Your task to perform on an android device: Clear the cart on target. Search for "usb-b" on target, select the first entry, and add it to the cart. Image 0: 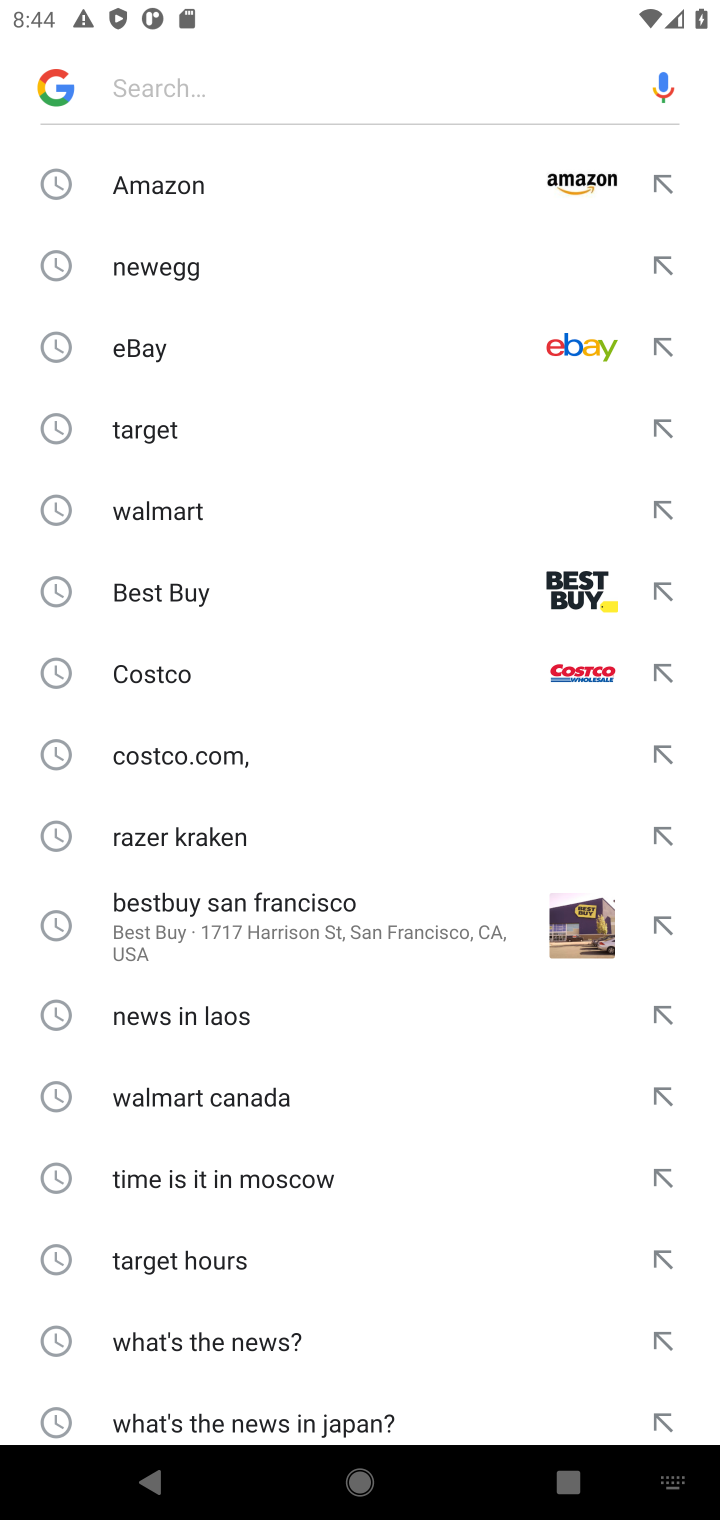
Step 0: press home button
Your task to perform on an android device: Clear the cart on target. Search for "usb-b" on target, select the first entry, and add it to the cart. Image 1: 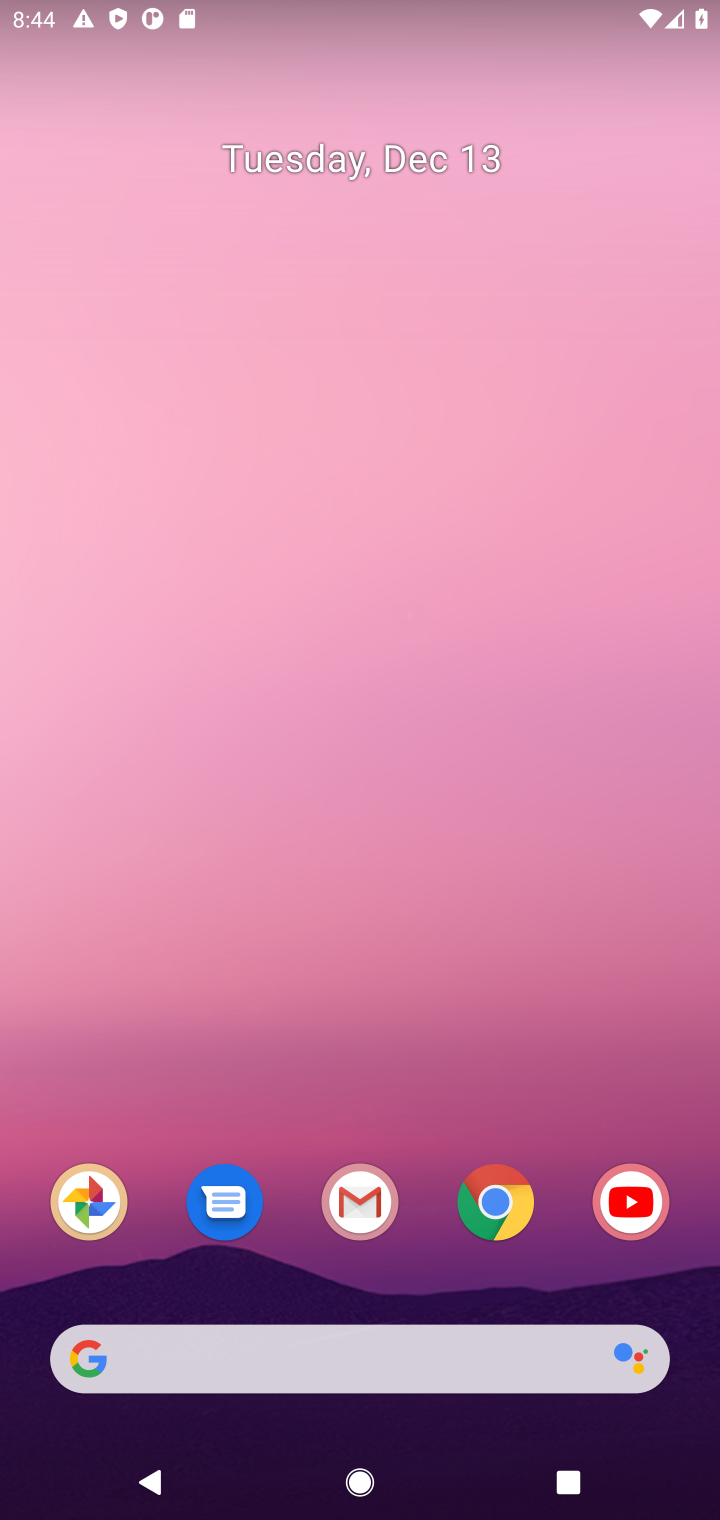
Step 1: click (502, 1207)
Your task to perform on an android device: Clear the cart on target. Search for "usb-b" on target, select the first entry, and add it to the cart. Image 2: 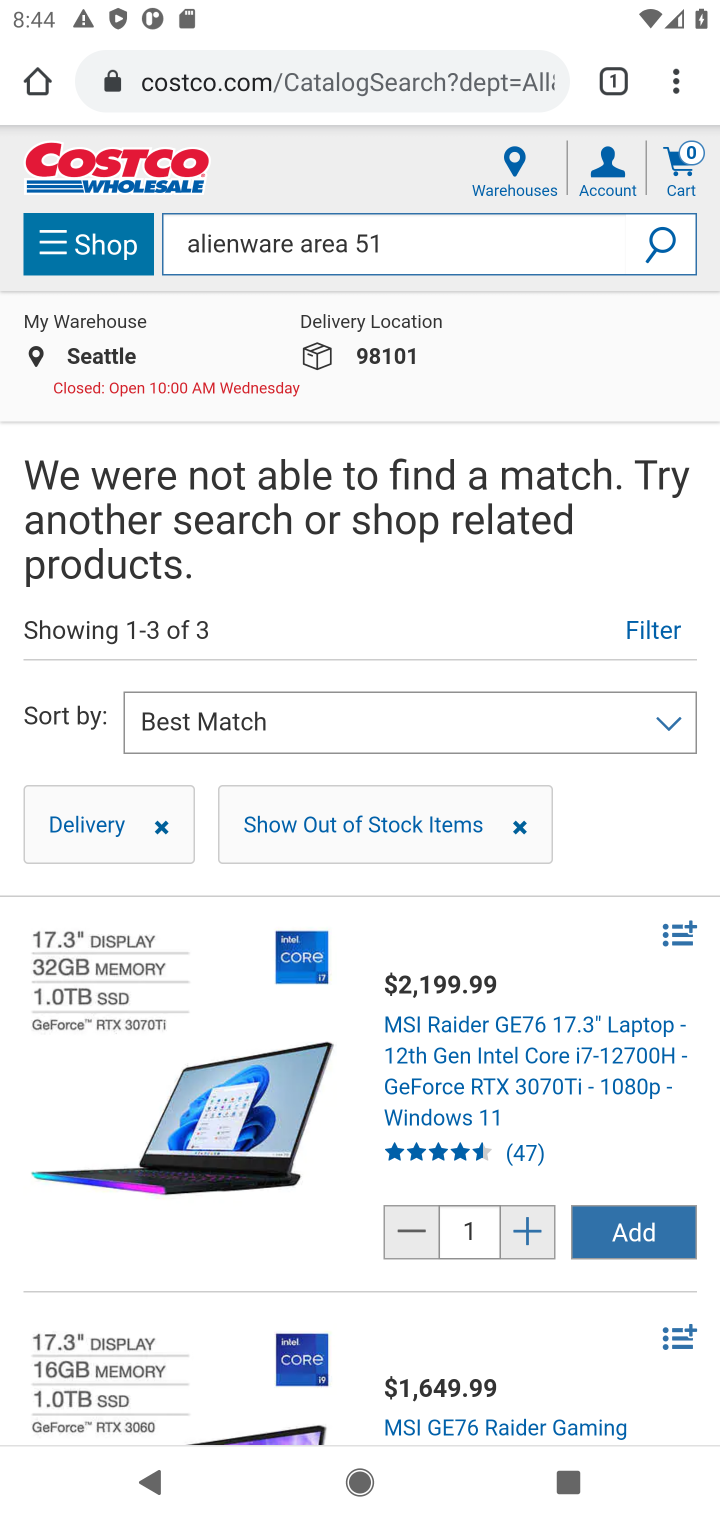
Step 2: click (274, 93)
Your task to perform on an android device: Clear the cart on target. Search for "usb-b" on target, select the first entry, and add it to the cart. Image 3: 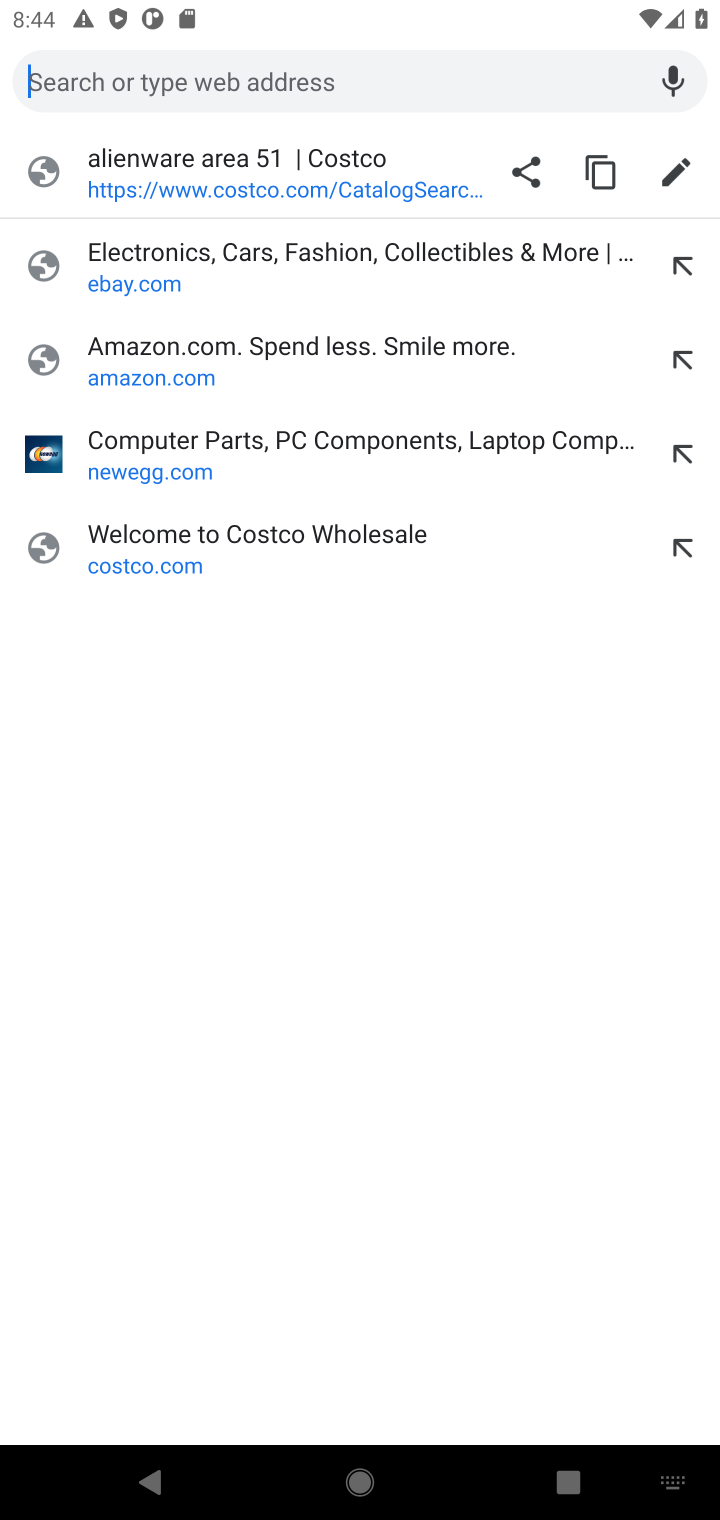
Step 3: type "target.com"
Your task to perform on an android device: Clear the cart on target. Search for "usb-b" on target, select the first entry, and add it to the cart. Image 4: 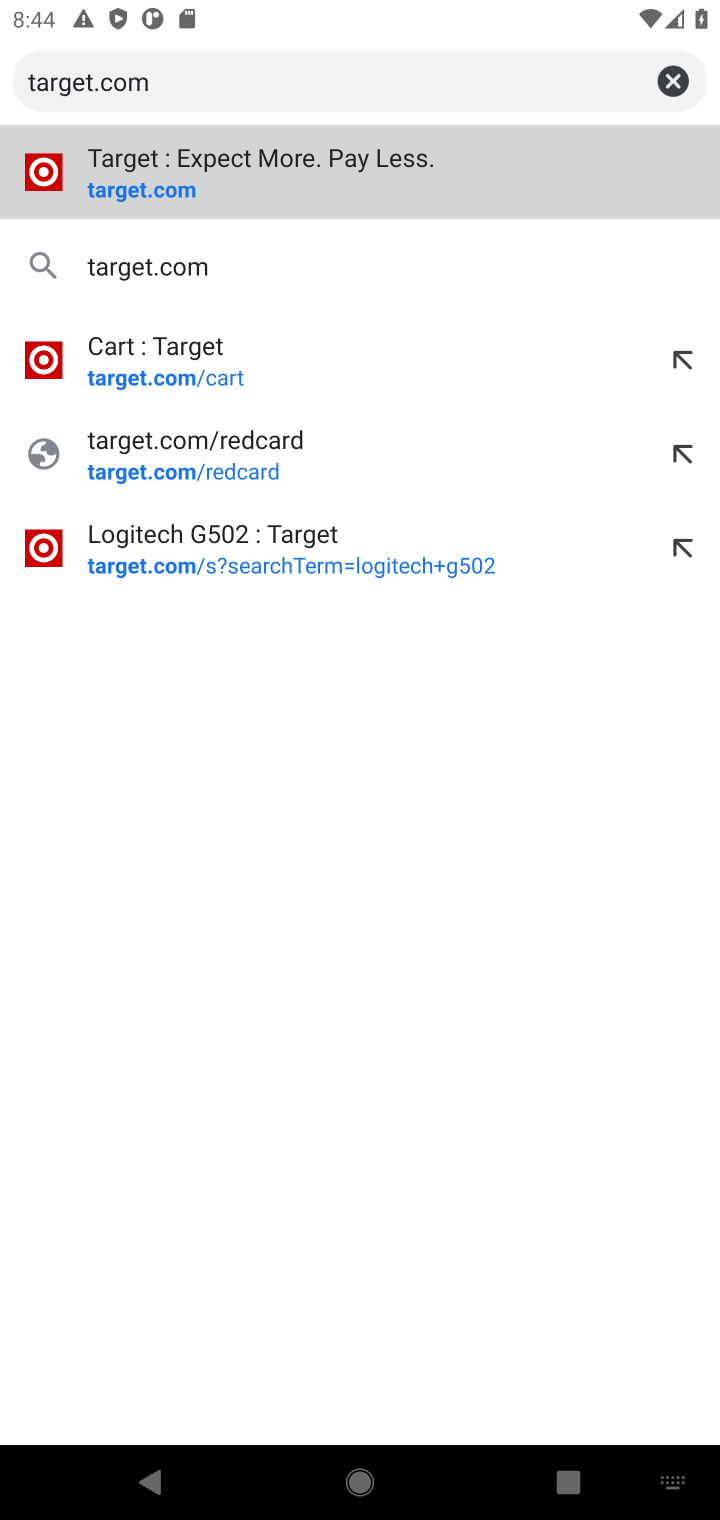
Step 4: click (167, 197)
Your task to perform on an android device: Clear the cart on target. Search for "usb-b" on target, select the first entry, and add it to the cart. Image 5: 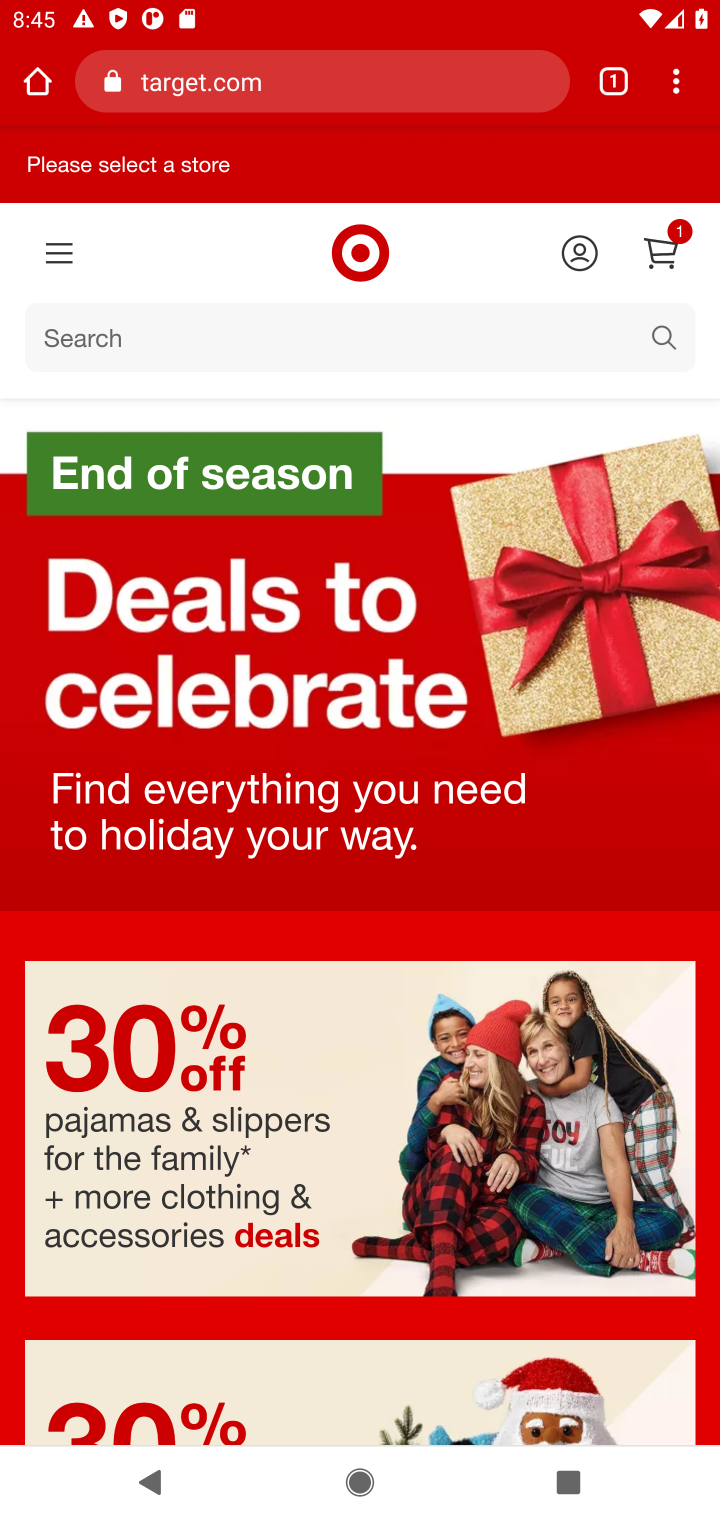
Step 5: click (668, 257)
Your task to perform on an android device: Clear the cart on target. Search for "usb-b" on target, select the first entry, and add it to the cart. Image 6: 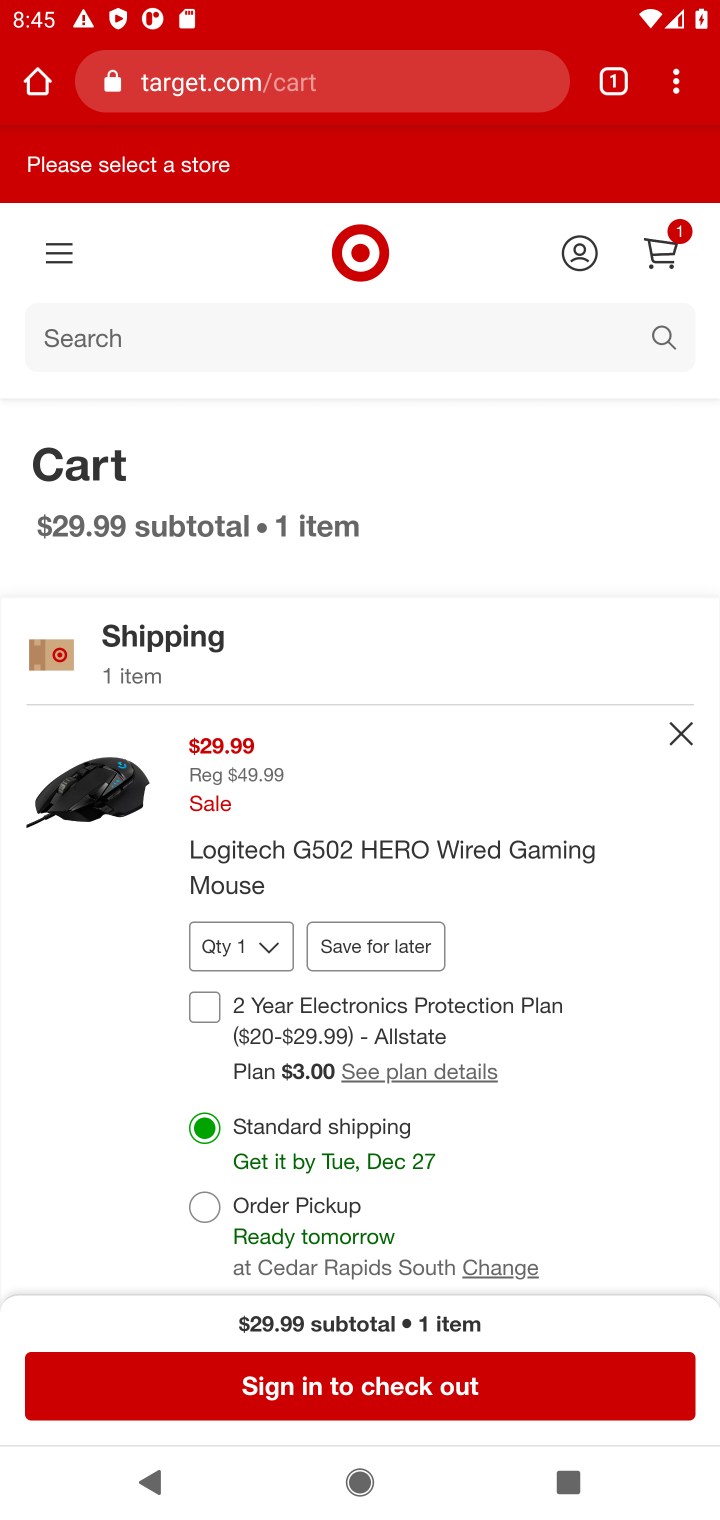
Step 6: click (679, 736)
Your task to perform on an android device: Clear the cart on target. Search for "usb-b" on target, select the first entry, and add it to the cart. Image 7: 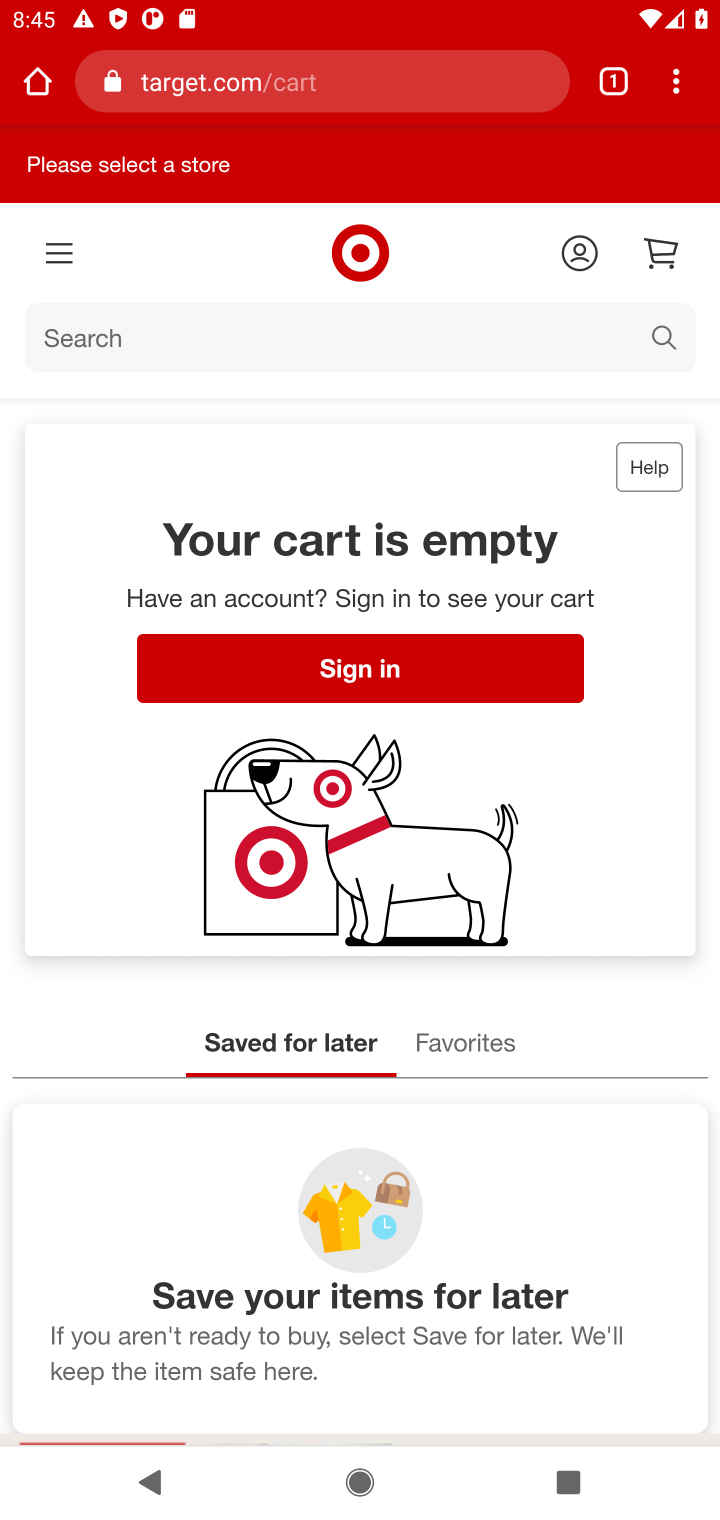
Step 7: click (99, 346)
Your task to perform on an android device: Clear the cart on target. Search for "usb-b" on target, select the first entry, and add it to the cart. Image 8: 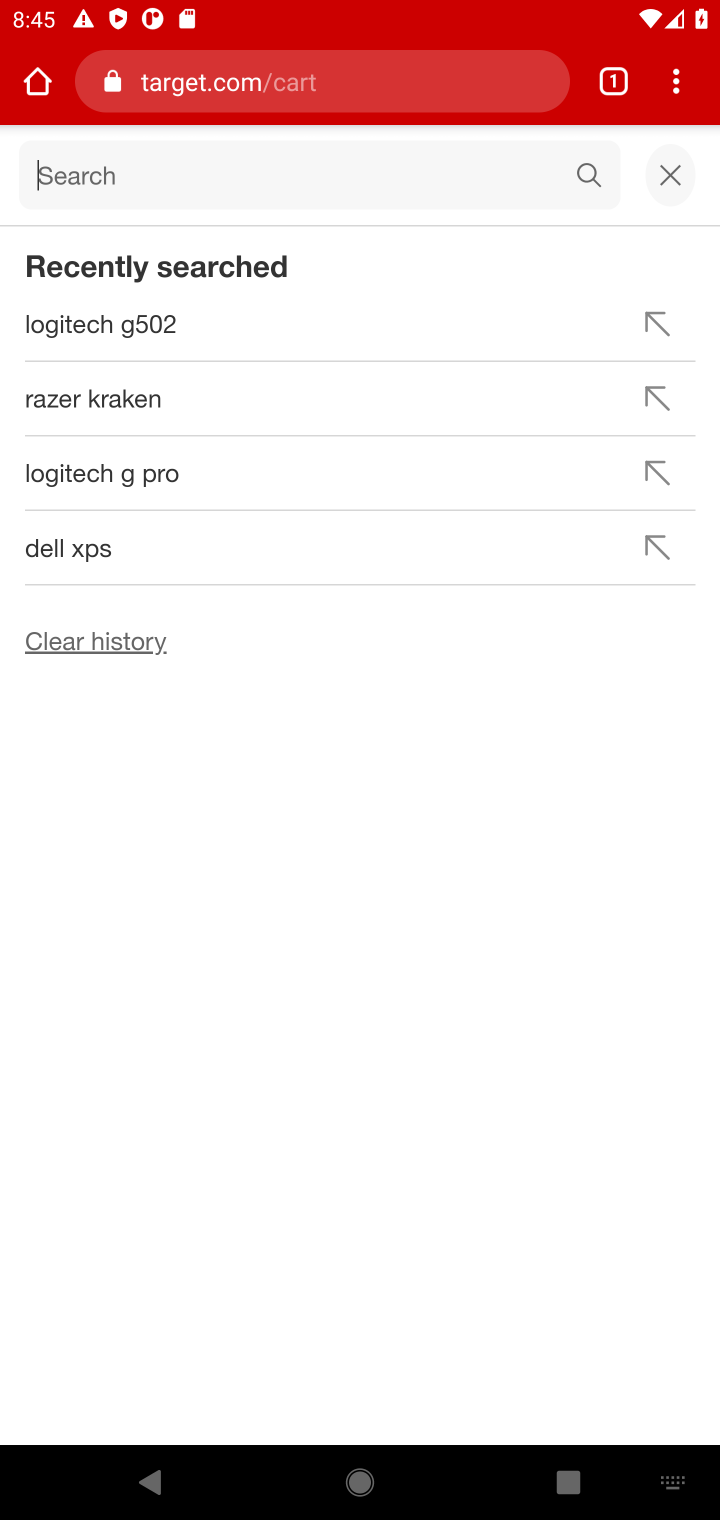
Step 8: type "usb-b"
Your task to perform on an android device: Clear the cart on target. Search for "usb-b" on target, select the first entry, and add it to the cart. Image 9: 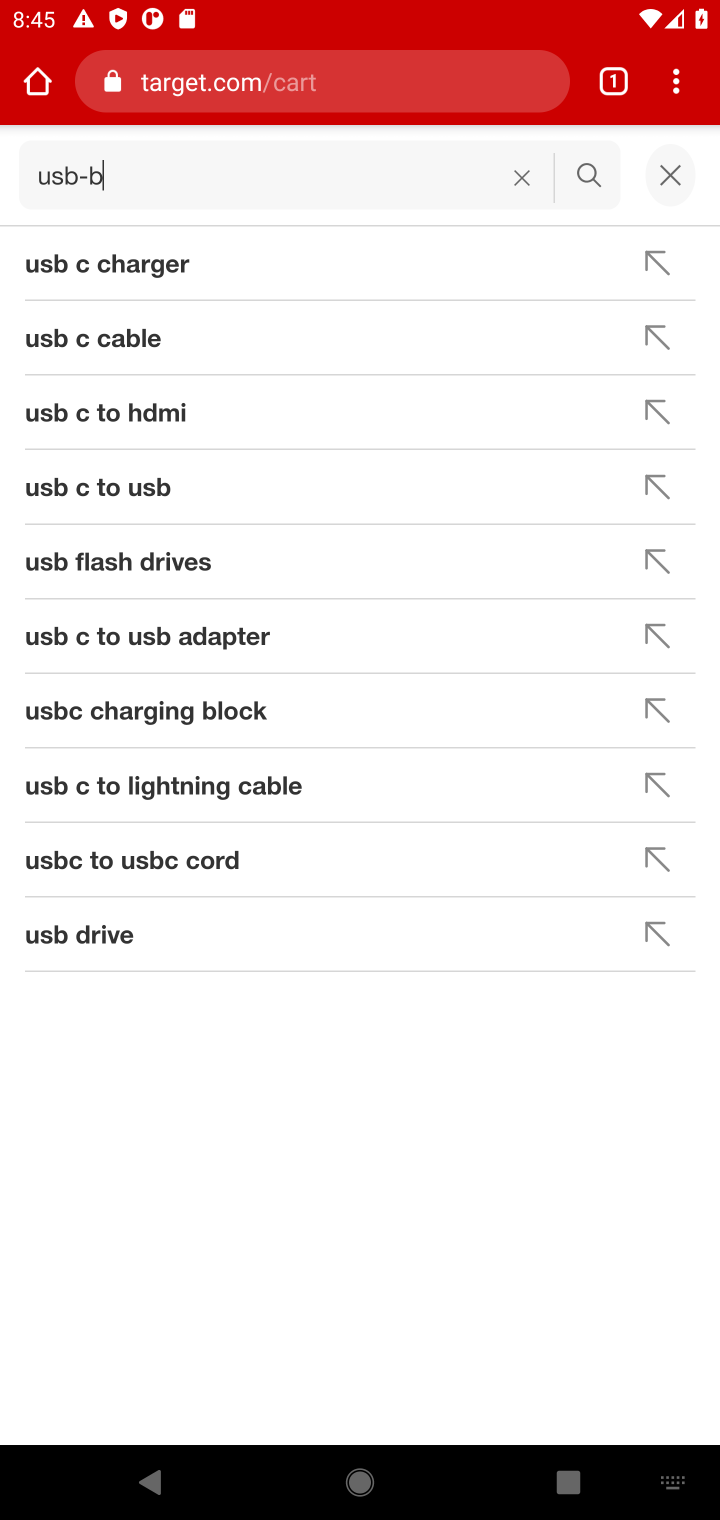
Step 9: click (604, 171)
Your task to perform on an android device: Clear the cart on target. Search for "usb-b" on target, select the first entry, and add it to the cart. Image 10: 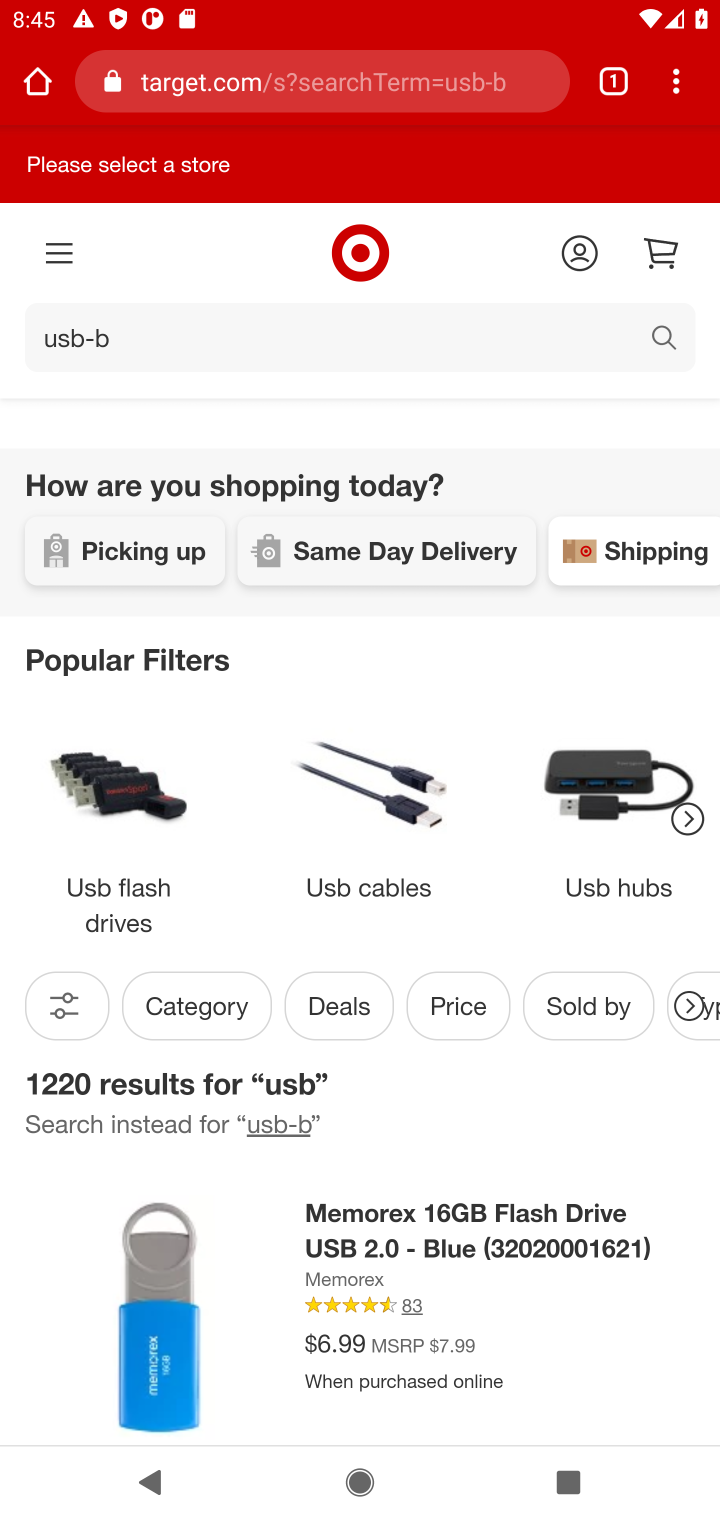
Step 10: task complete